Your task to perform on an android device: Open the calendar app, open the side menu, and click the "Day" option Image 0: 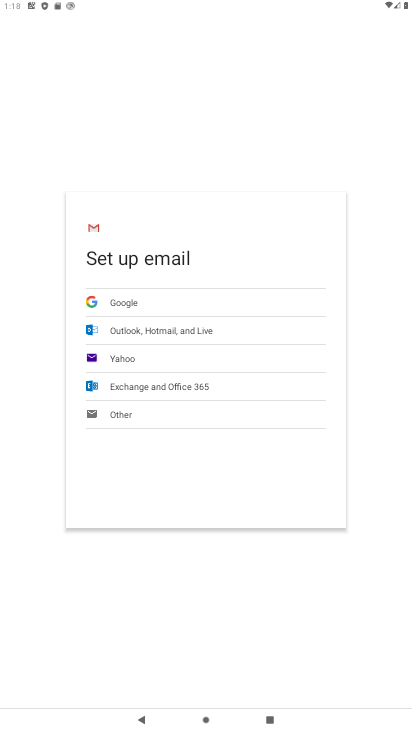
Step 0: press home button
Your task to perform on an android device: Open the calendar app, open the side menu, and click the "Day" option Image 1: 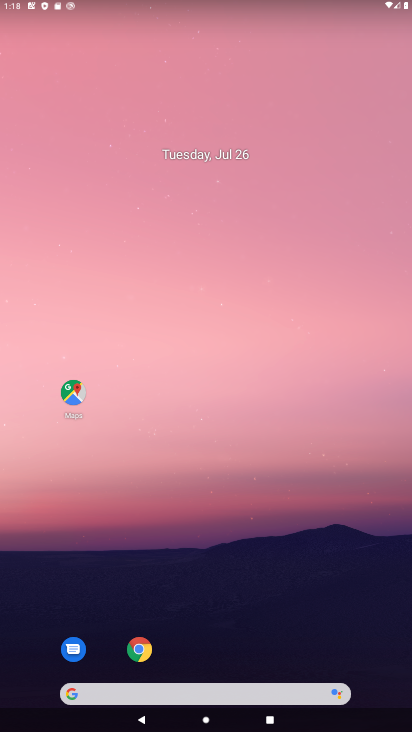
Step 1: drag from (336, 517) to (177, 62)
Your task to perform on an android device: Open the calendar app, open the side menu, and click the "Day" option Image 2: 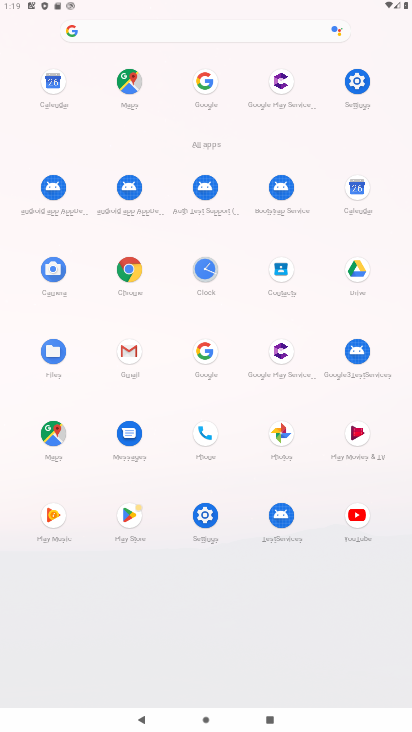
Step 2: click (358, 184)
Your task to perform on an android device: Open the calendar app, open the side menu, and click the "Day" option Image 3: 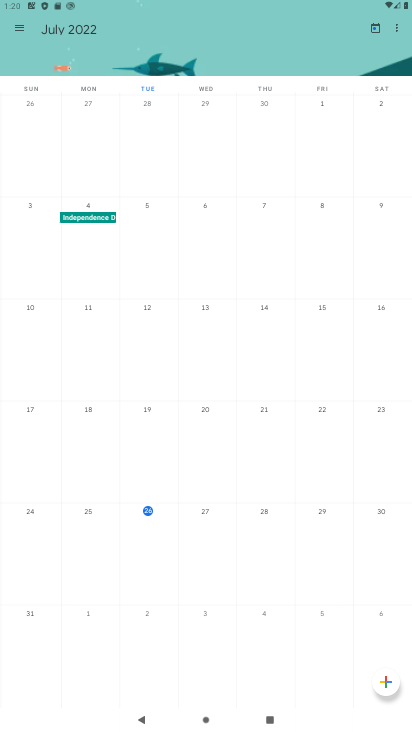
Step 3: click (19, 19)
Your task to perform on an android device: Open the calendar app, open the side menu, and click the "Day" option Image 4: 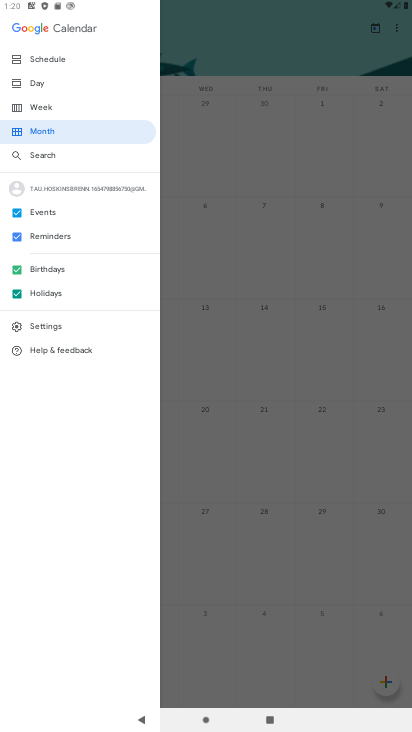
Step 4: click (43, 79)
Your task to perform on an android device: Open the calendar app, open the side menu, and click the "Day" option Image 5: 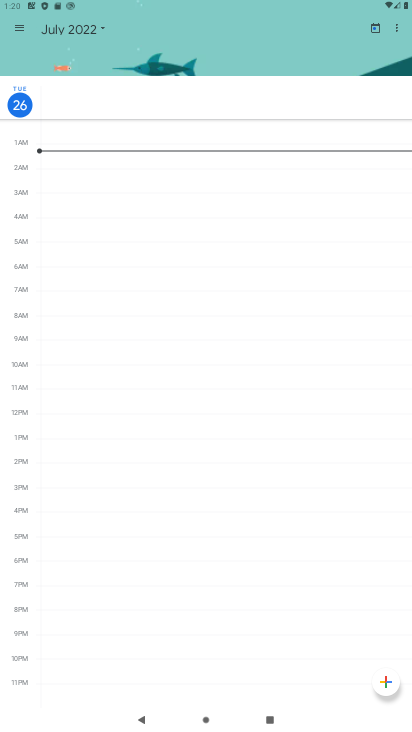
Step 5: task complete